Your task to perform on an android device: show emergency info Image 0: 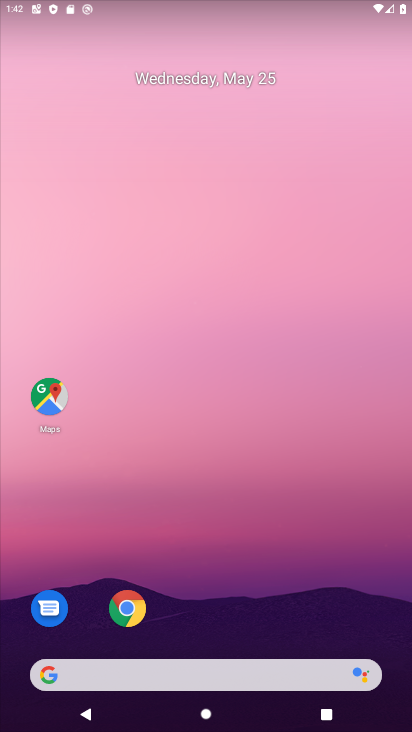
Step 0: drag from (255, 658) to (202, 238)
Your task to perform on an android device: show emergency info Image 1: 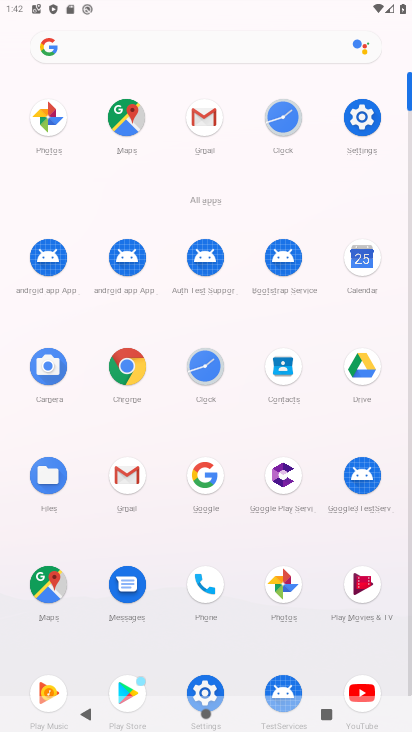
Step 1: click (367, 117)
Your task to perform on an android device: show emergency info Image 2: 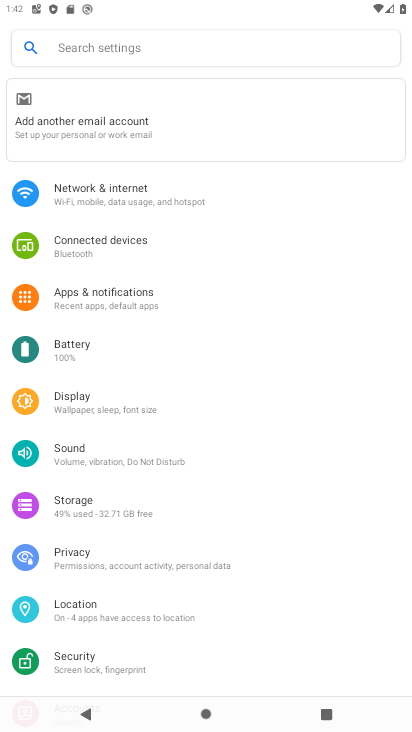
Step 2: drag from (120, 667) to (143, 515)
Your task to perform on an android device: show emergency info Image 3: 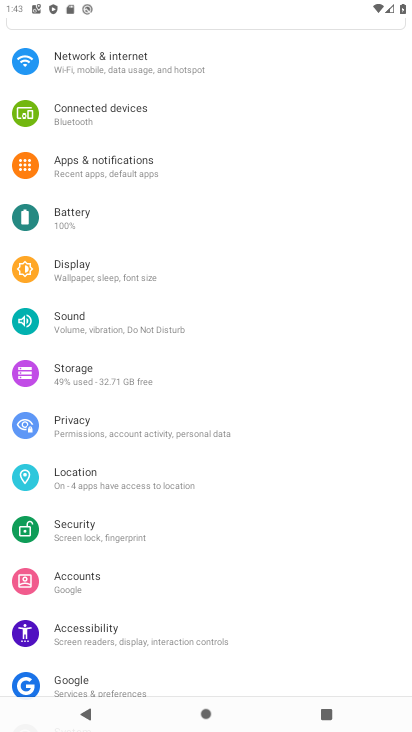
Step 3: drag from (107, 676) to (213, 272)
Your task to perform on an android device: show emergency info Image 4: 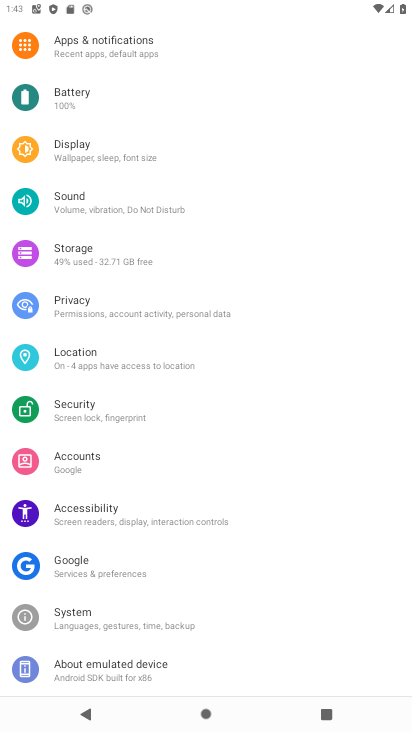
Step 4: click (96, 670)
Your task to perform on an android device: show emergency info Image 5: 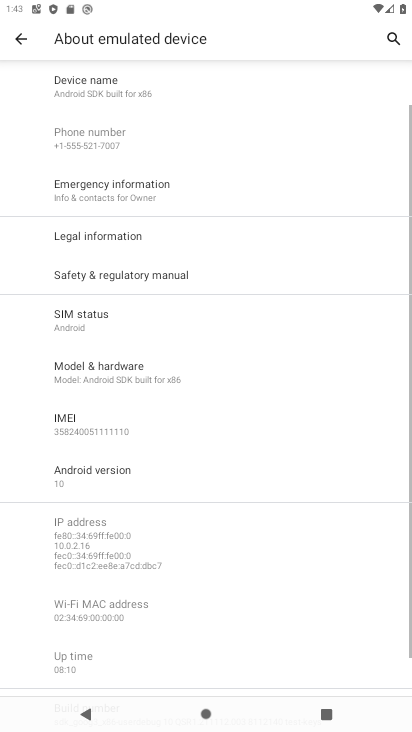
Step 5: click (161, 191)
Your task to perform on an android device: show emergency info Image 6: 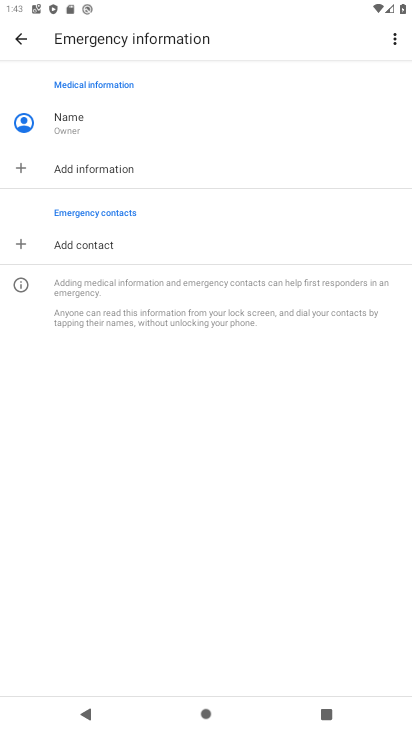
Step 6: task complete